Your task to perform on an android device: turn on bluetooth scan Image 0: 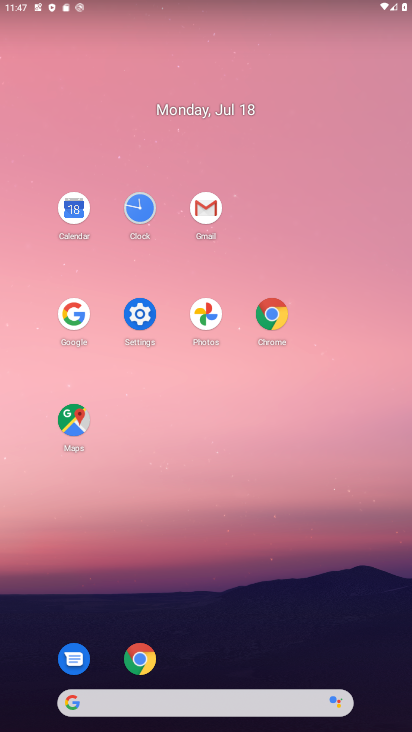
Step 0: click (138, 318)
Your task to perform on an android device: turn on bluetooth scan Image 1: 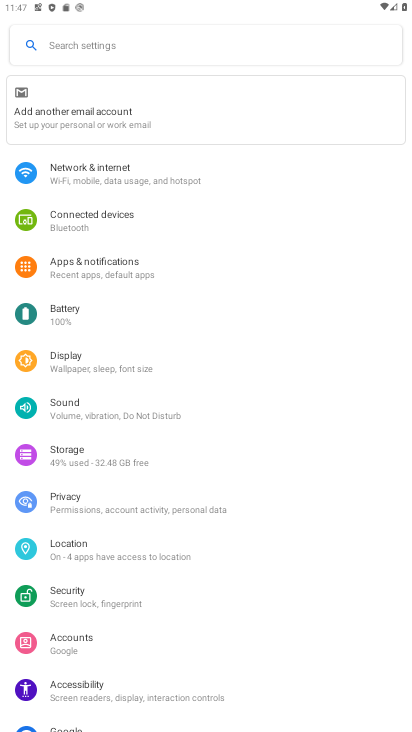
Step 1: click (127, 551)
Your task to perform on an android device: turn on bluetooth scan Image 2: 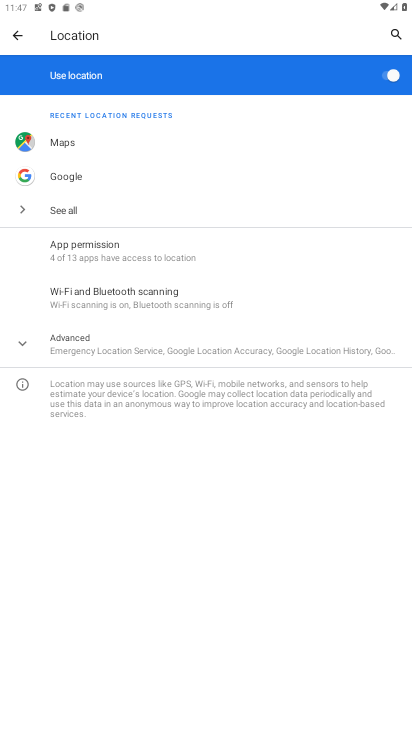
Step 2: task complete